Your task to perform on an android device: See recent photos Image 0: 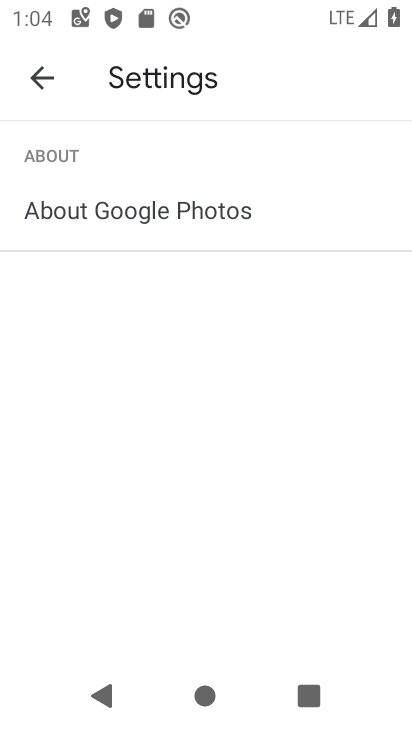
Step 0: press home button
Your task to perform on an android device: See recent photos Image 1: 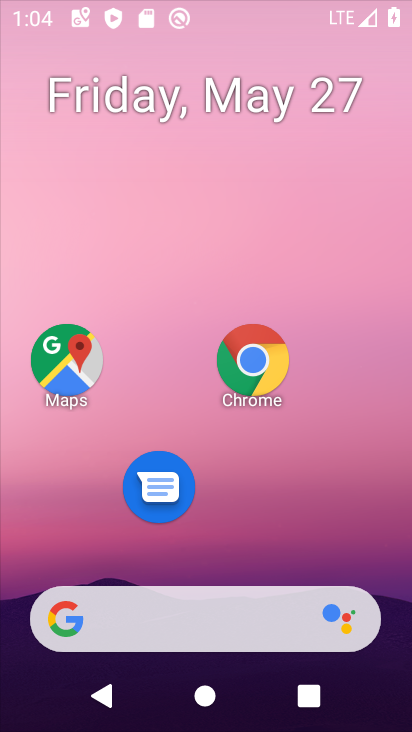
Step 1: click (349, 84)
Your task to perform on an android device: See recent photos Image 2: 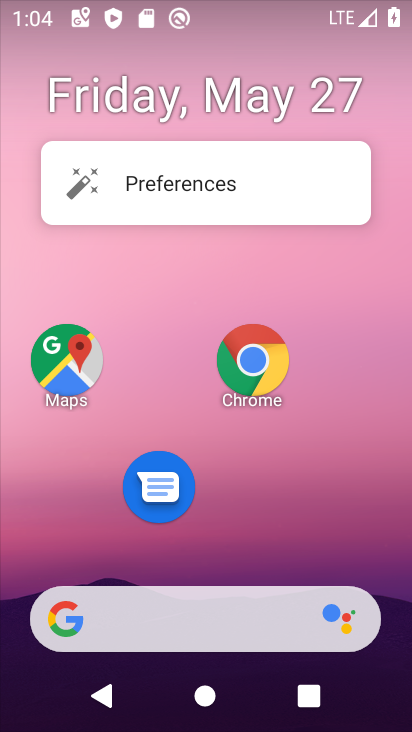
Step 2: drag from (258, 521) to (257, 182)
Your task to perform on an android device: See recent photos Image 3: 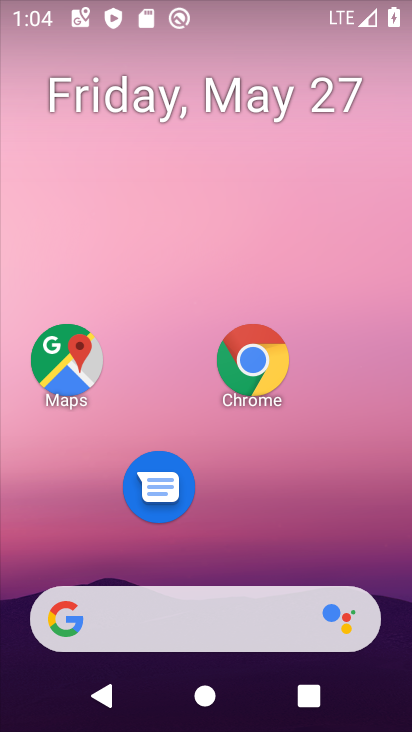
Step 3: drag from (245, 518) to (233, 103)
Your task to perform on an android device: See recent photos Image 4: 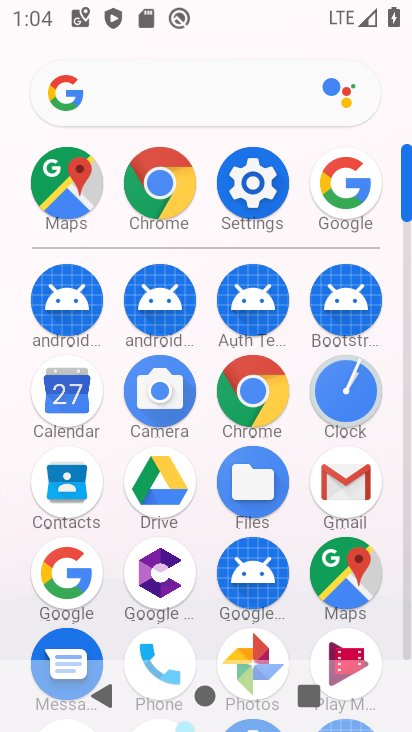
Step 4: click (348, 180)
Your task to perform on an android device: See recent photos Image 5: 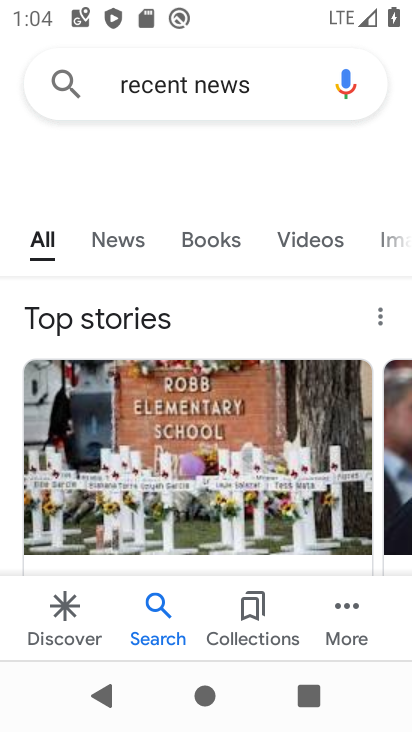
Step 5: click (252, 90)
Your task to perform on an android device: See recent photos Image 6: 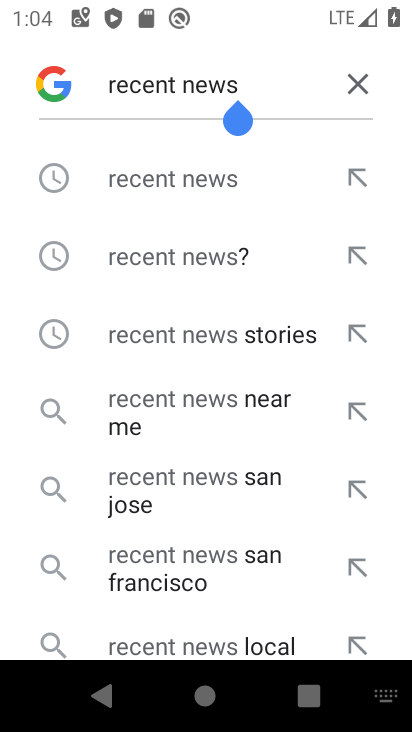
Step 6: press home button
Your task to perform on an android device: See recent photos Image 7: 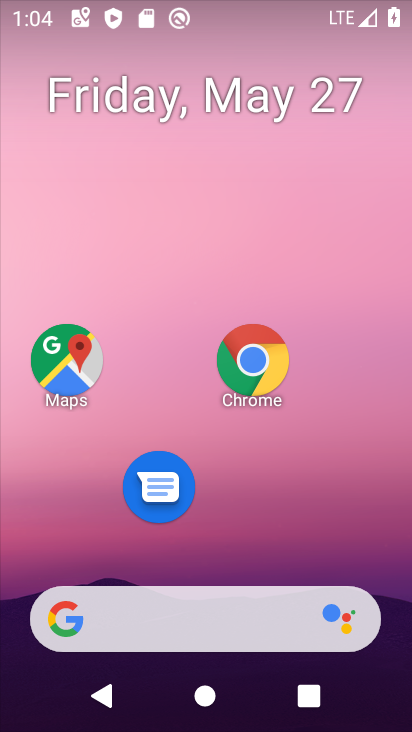
Step 7: drag from (242, 524) to (241, 5)
Your task to perform on an android device: See recent photos Image 8: 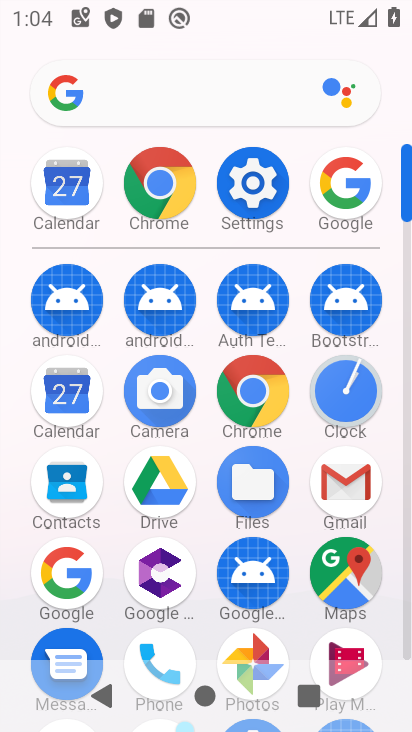
Step 8: drag from (205, 607) to (209, 285)
Your task to perform on an android device: See recent photos Image 9: 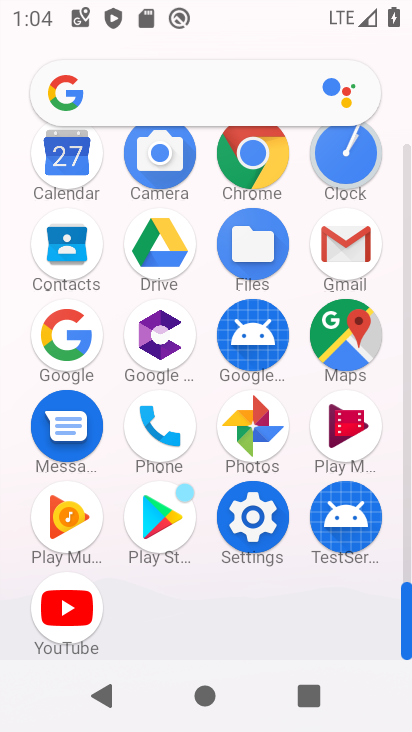
Step 9: click (253, 433)
Your task to perform on an android device: See recent photos Image 10: 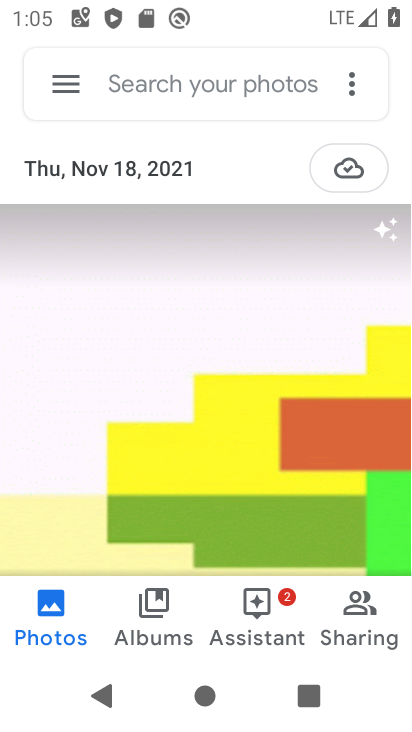
Step 10: task complete